Your task to perform on an android device: Open accessibility settings Image 0: 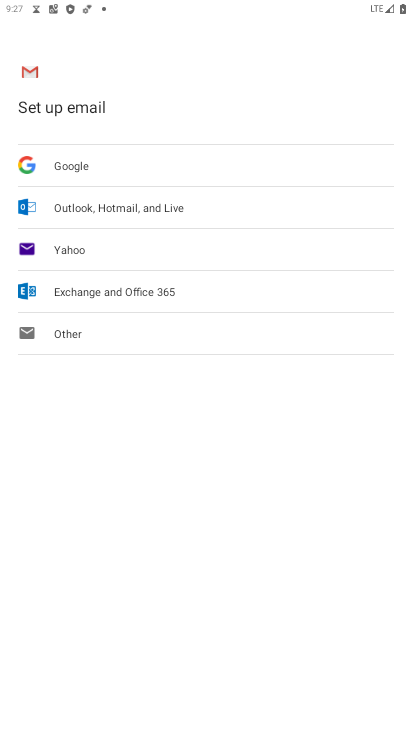
Step 0: press home button
Your task to perform on an android device: Open accessibility settings Image 1: 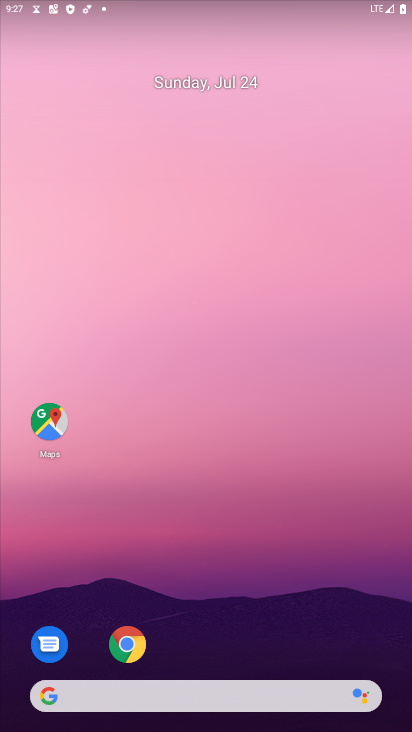
Step 1: drag from (304, 621) to (354, 65)
Your task to perform on an android device: Open accessibility settings Image 2: 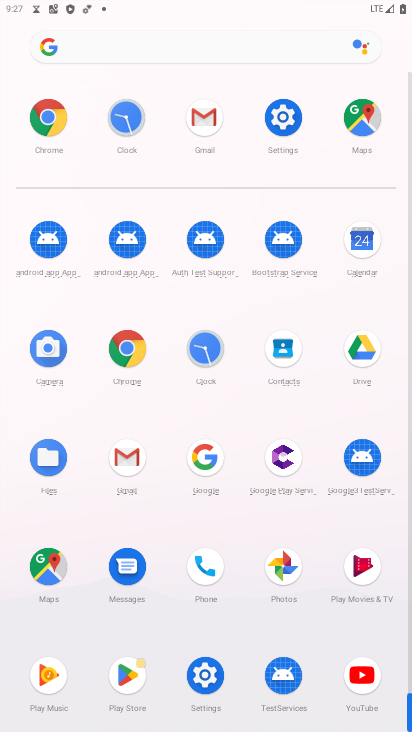
Step 2: click (191, 662)
Your task to perform on an android device: Open accessibility settings Image 3: 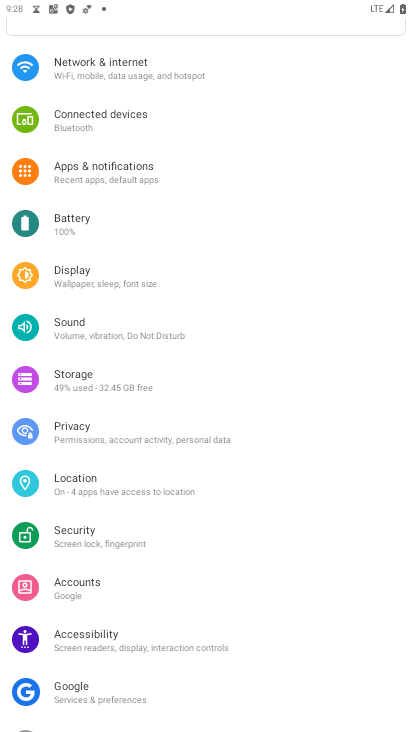
Step 3: drag from (197, 599) to (227, 168)
Your task to perform on an android device: Open accessibility settings Image 4: 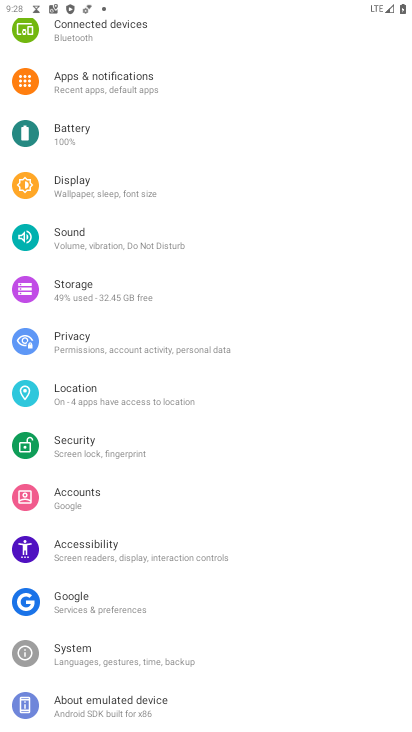
Step 4: click (103, 546)
Your task to perform on an android device: Open accessibility settings Image 5: 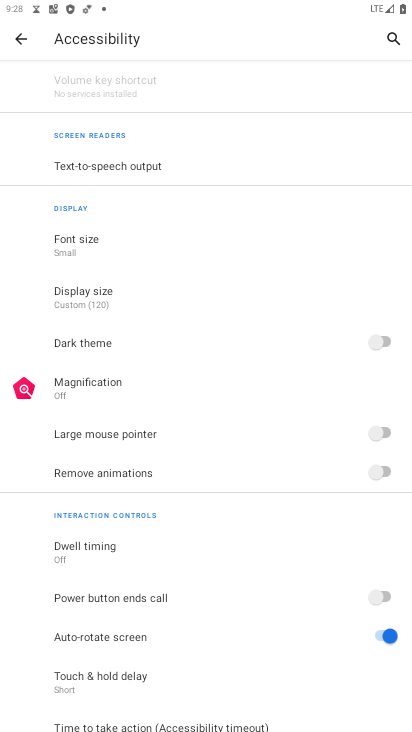
Step 5: task complete